Your task to perform on an android device: move an email to a new category in the gmail app Image 0: 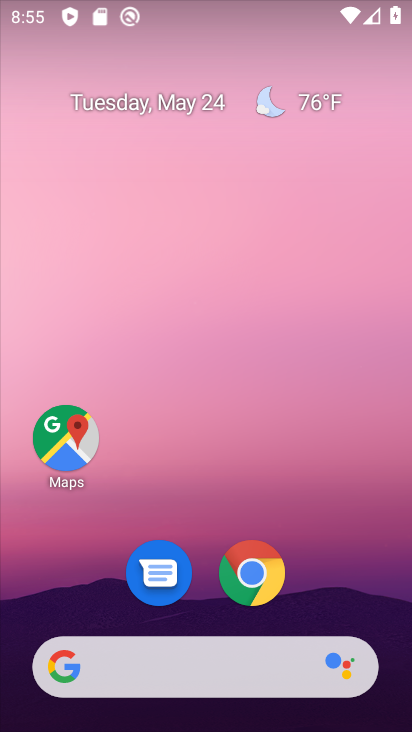
Step 0: click (1, 515)
Your task to perform on an android device: move an email to a new category in the gmail app Image 1: 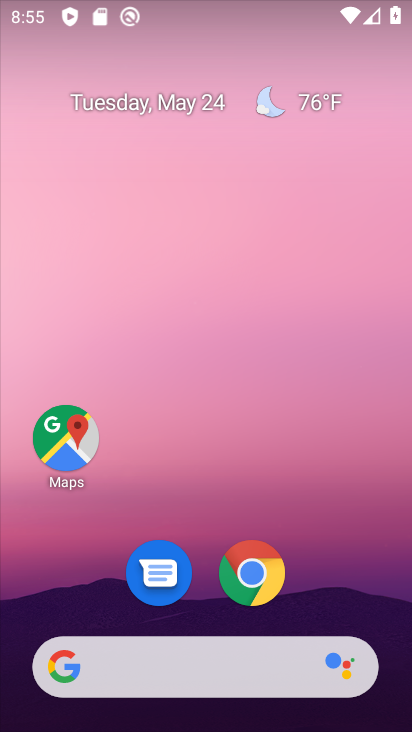
Step 1: drag from (105, 523) to (195, 164)
Your task to perform on an android device: move an email to a new category in the gmail app Image 2: 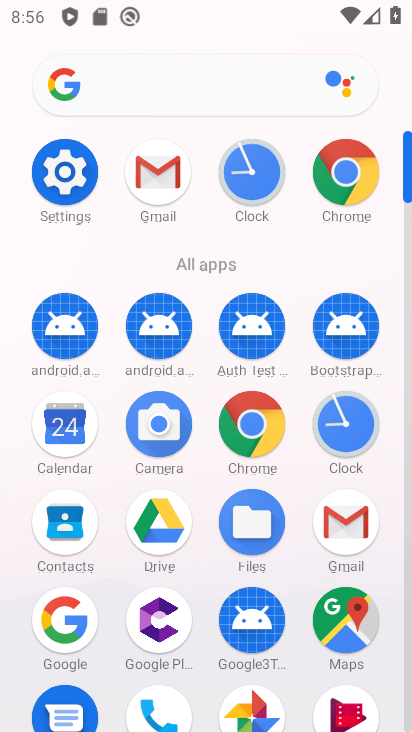
Step 2: click (336, 512)
Your task to perform on an android device: move an email to a new category in the gmail app Image 3: 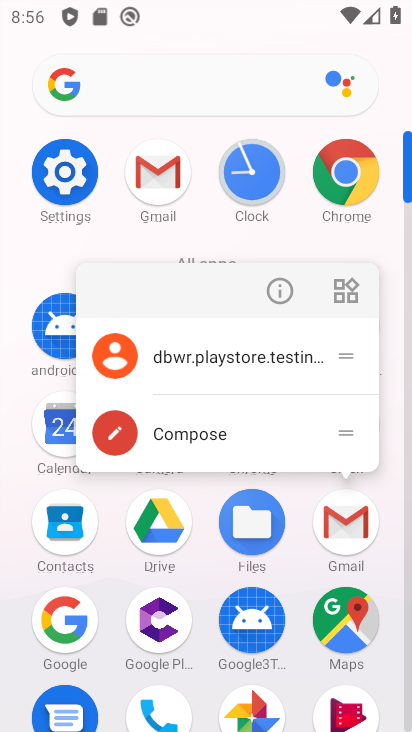
Step 3: click (340, 519)
Your task to perform on an android device: move an email to a new category in the gmail app Image 4: 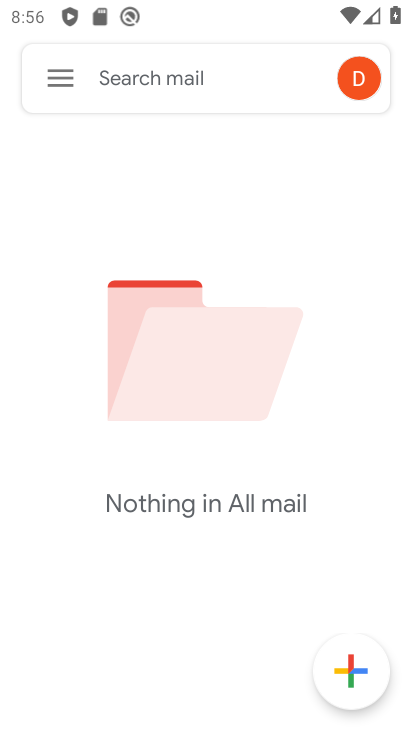
Step 4: click (75, 79)
Your task to perform on an android device: move an email to a new category in the gmail app Image 5: 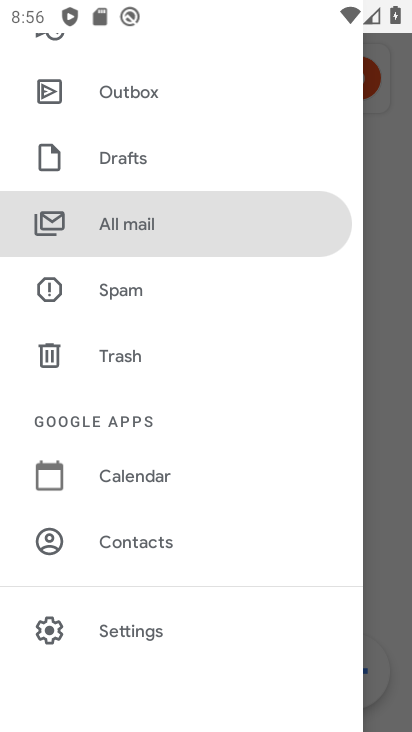
Step 5: click (181, 238)
Your task to perform on an android device: move an email to a new category in the gmail app Image 6: 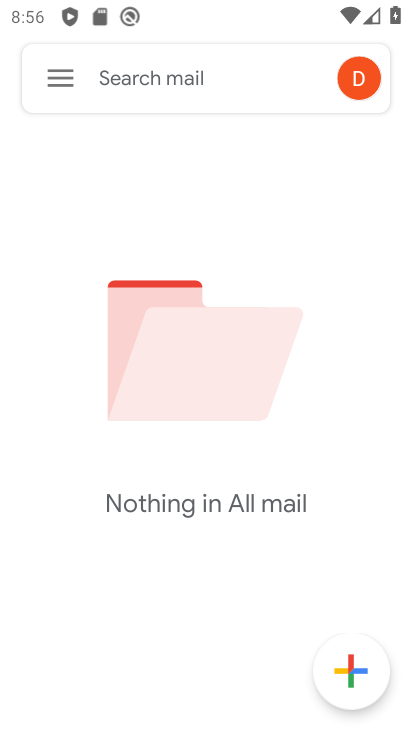
Step 6: task complete